Your task to perform on an android device: Open Wikipedia Image 0: 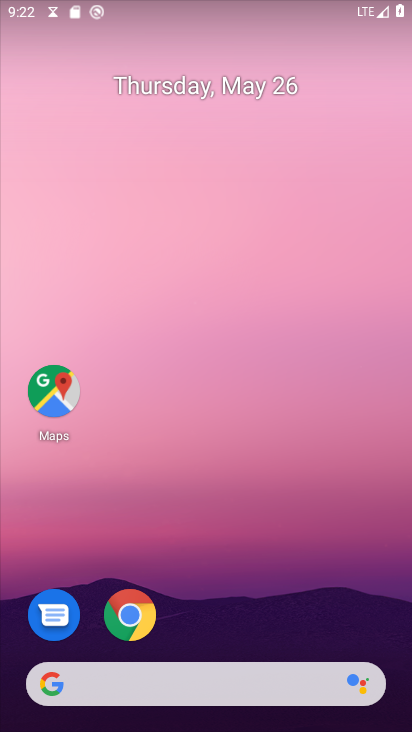
Step 0: drag from (242, 607) to (216, 224)
Your task to perform on an android device: Open Wikipedia Image 1: 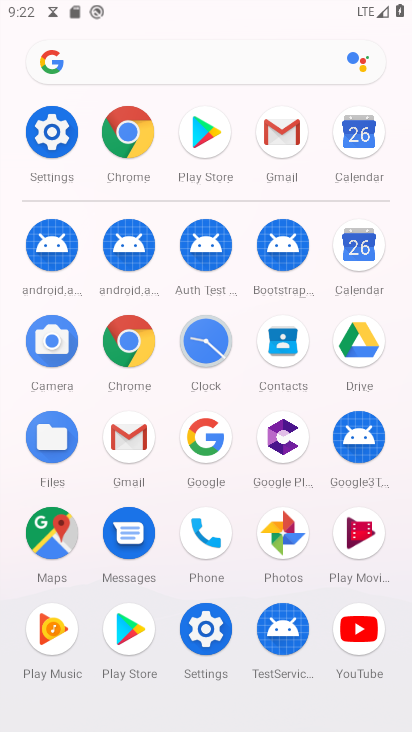
Step 1: click (120, 131)
Your task to perform on an android device: Open Wikipedia Image 2: 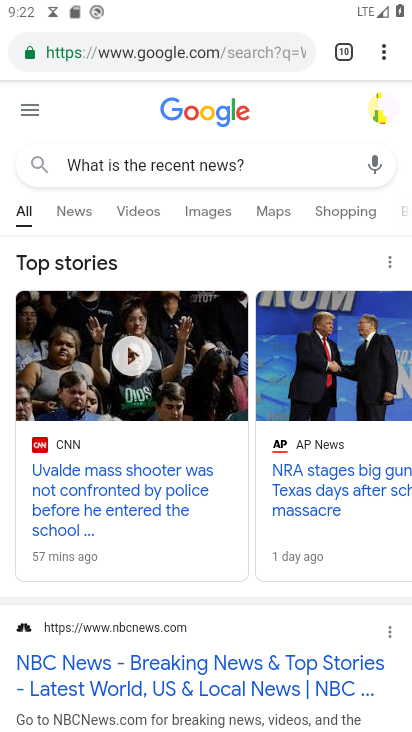
Step 2: click (385, 51)
Your task to perform on an android device: Open Wikipedia Image 3: 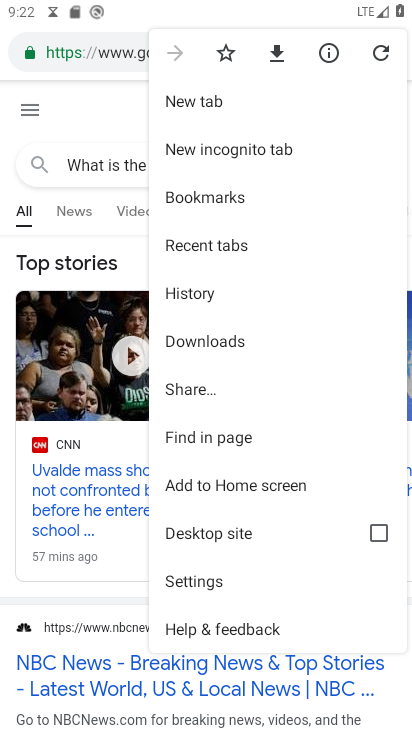
Step 3: click (251, 96)
Your task to perform on an android device: Open Wikipedia Image 4: 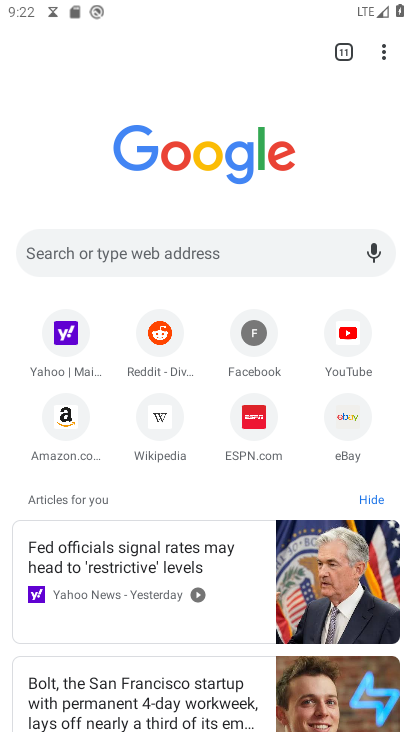
Step 4: click (166, 413)
Your task to perform on an android device: Open Wikipedia Image 5: 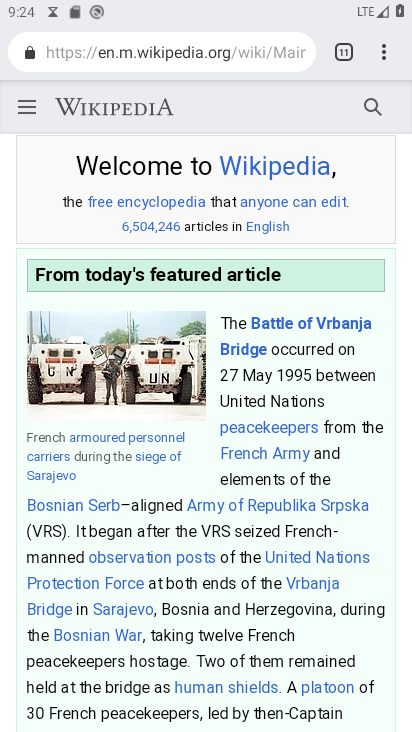
Step 5: task complete